Your task to perform on an android device: all mails in gmail Image 0: 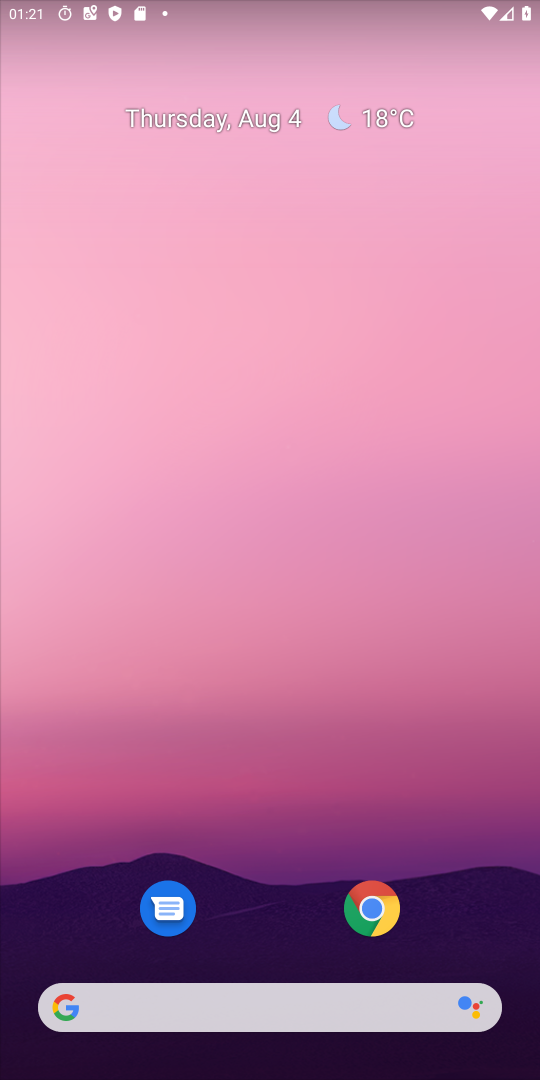
Step 0: drag from (356, 1052) to (281, 216)
Your task to perform on an android device: all mails in gmail Image 1: 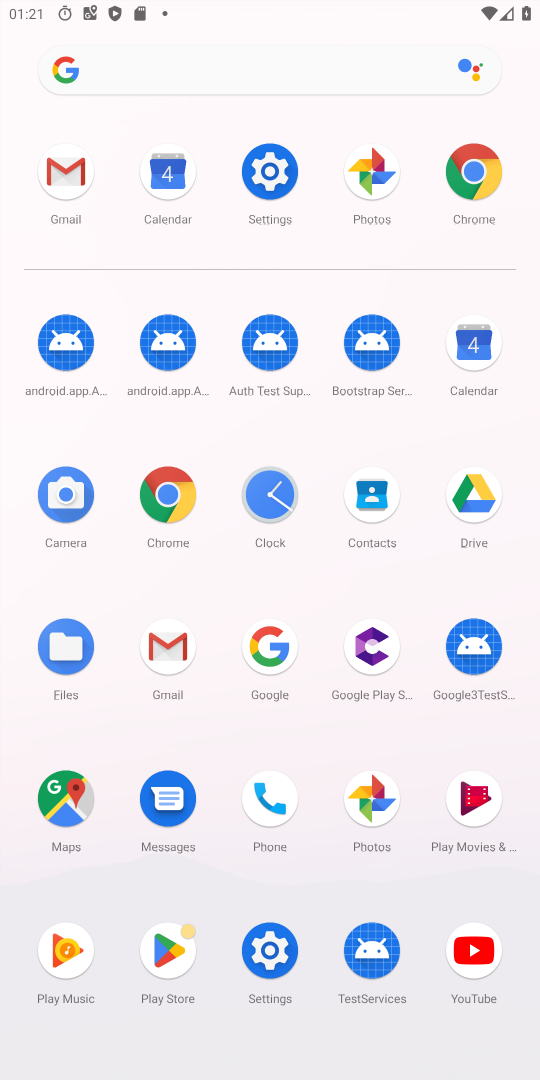
Step 1: click (173, 662)
Your task to perform on an android device: all mails in gmail Image 2: 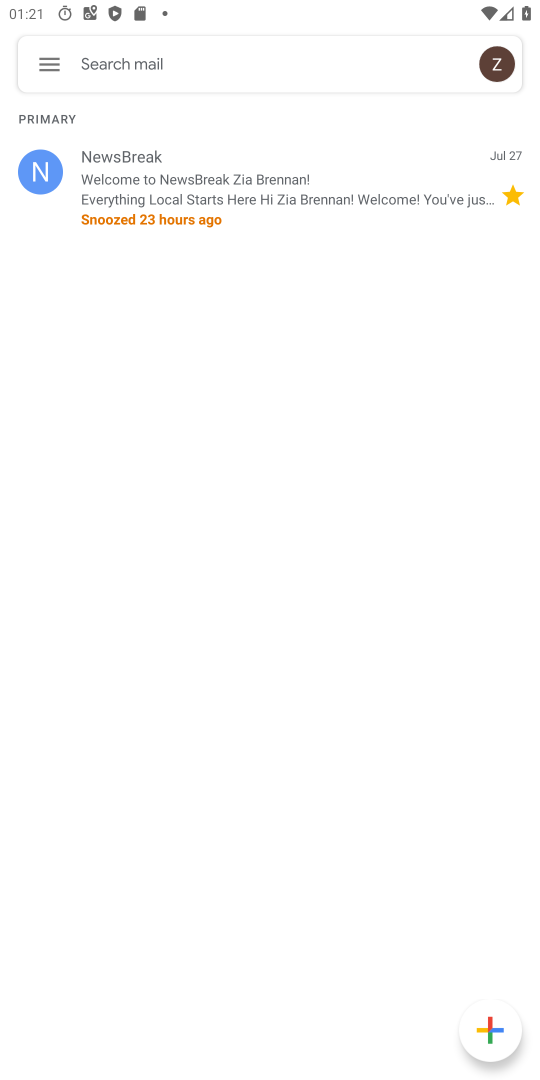
Step 2: click (45, 73)
Your task to perform on an android device: all mails in gmail Image 3: 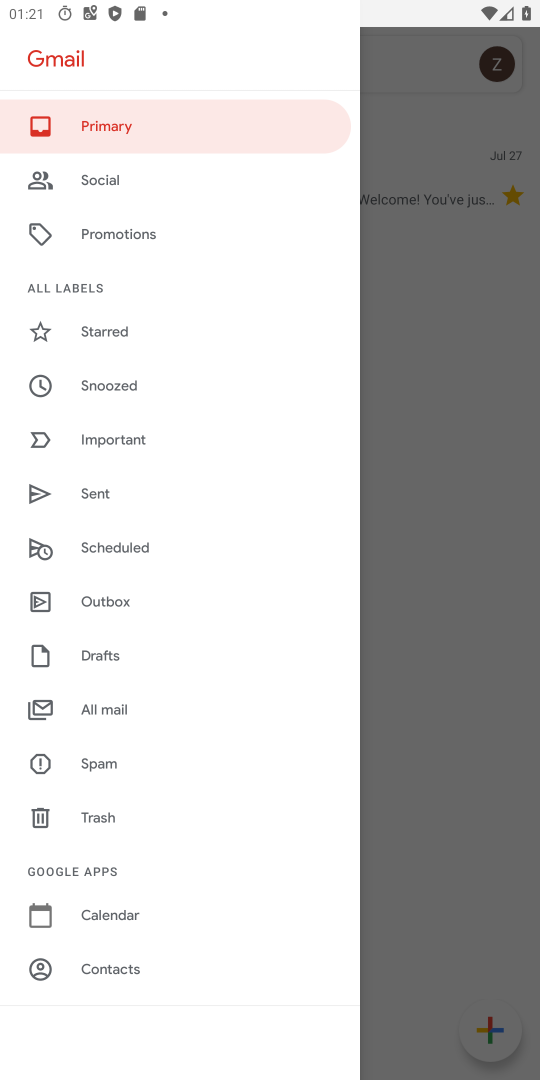
Step 3: click (143, 707)
Your task to perform on an android device: all mails in gmail Image 4: 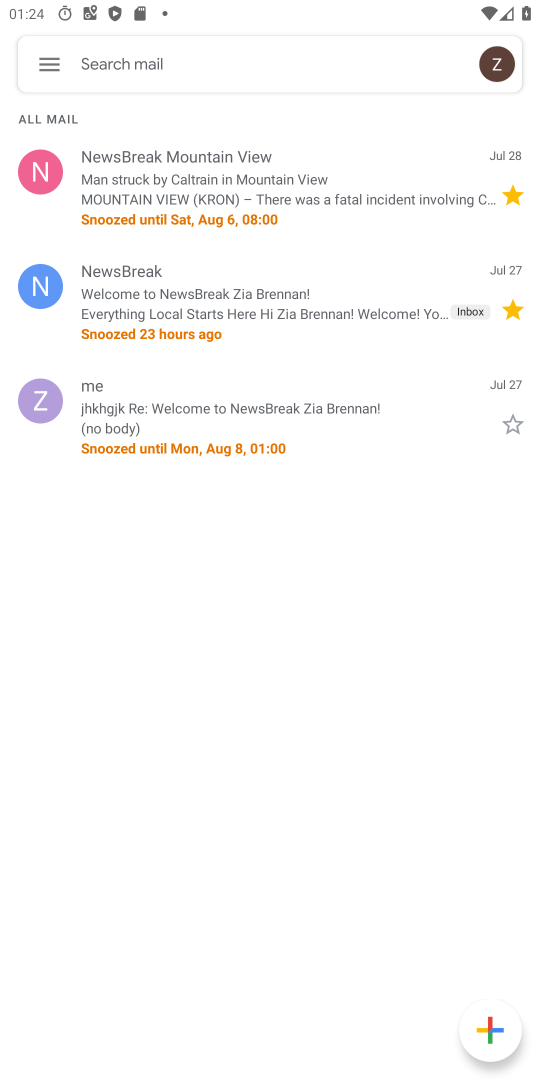
Step 4: task complete